Your task to perform on an android device: Go to CNN.com Image 0: 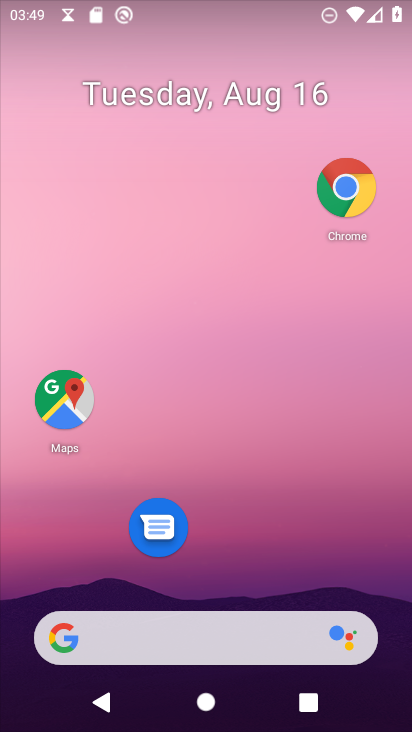
Step 0: drag from (205, 530) to (212, 19)
Your task to perform on an android device: Go to CNN.com Image 1: 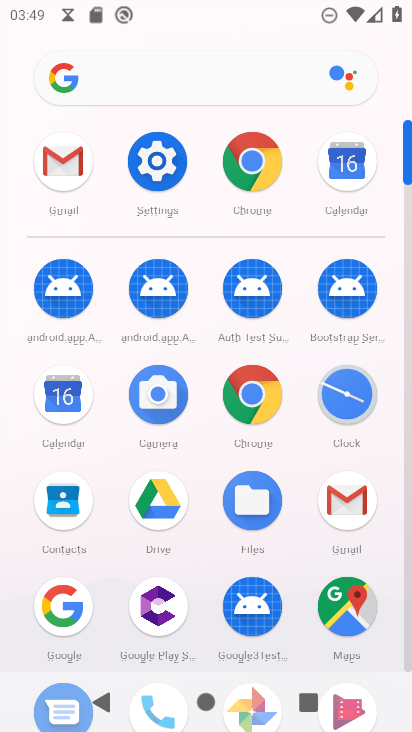
Step 1: click (248, 382)
Your task to perform on an android device: Go to CNN.com Image 2: 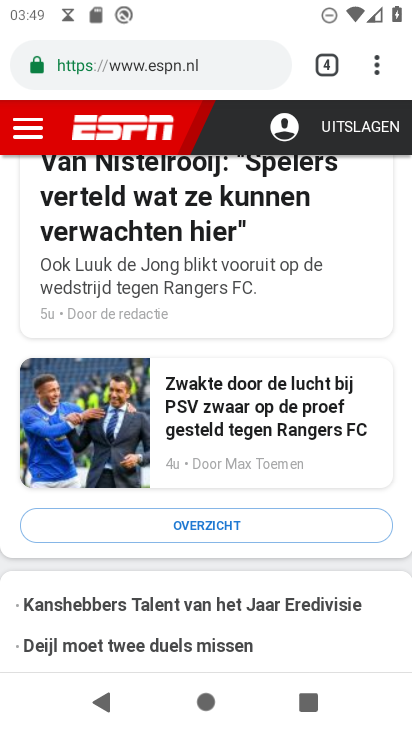
Step 2: click (325, 65)
Your task to perform on an android device: Go to CNN.com Image 3: 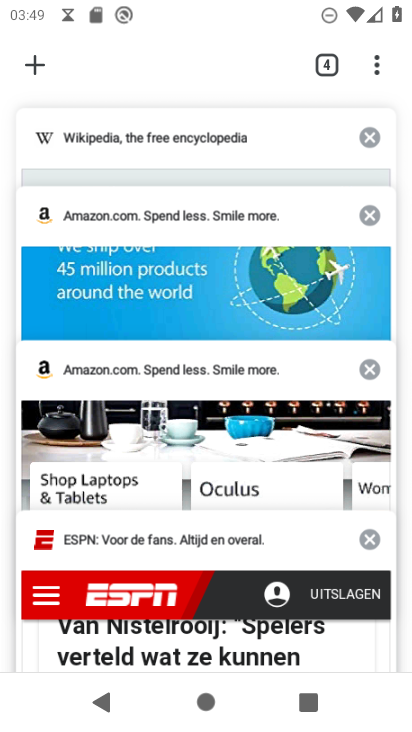
Step 3: click (28, 71)
Your task to perform on an android device: Go to CNN.com Image 4: 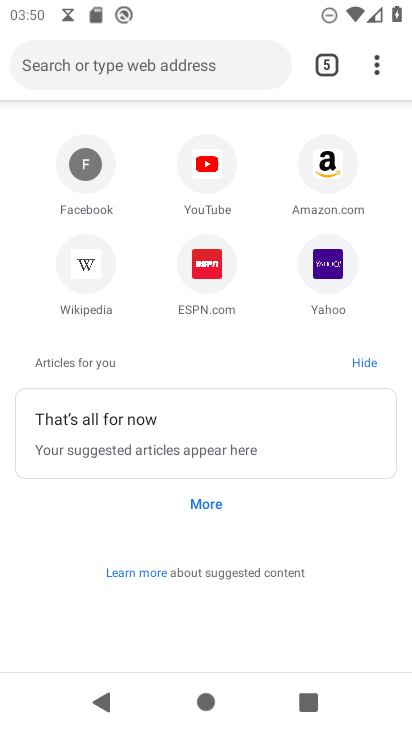
Step 4: click (112, 61)
Your task to perform on an android device: Go to CNN.com Image 5: 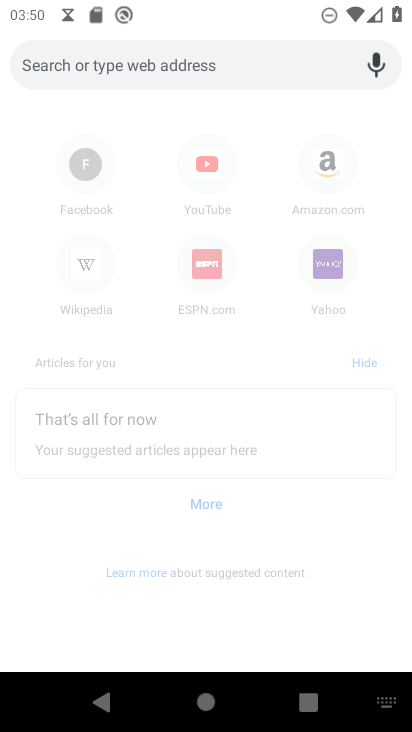
Step 5: type "CNN.com"
Your task to perform on an android device: Go to CNN.com Image 6: 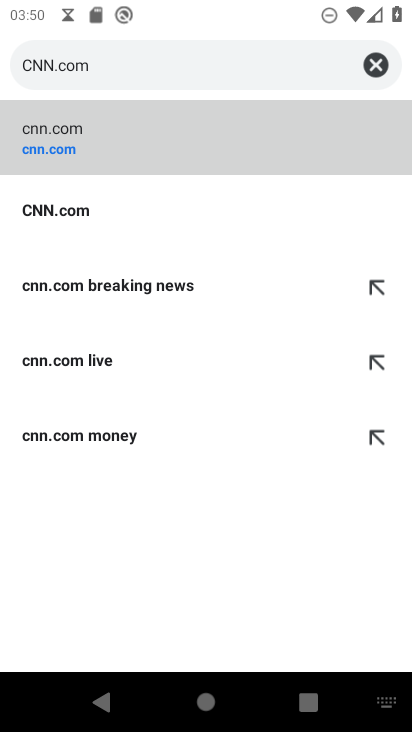
Step 6: click (96, 144)
Your task to perform on an android device: Go to CNN.com Image 7: 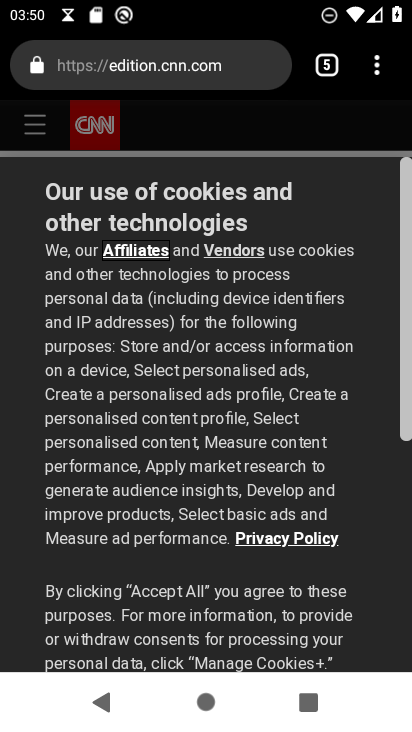
Step 7: drag from (217, 635) to (239, 169)
Your task to perform on an android device: Go to CNN.com Image 8: 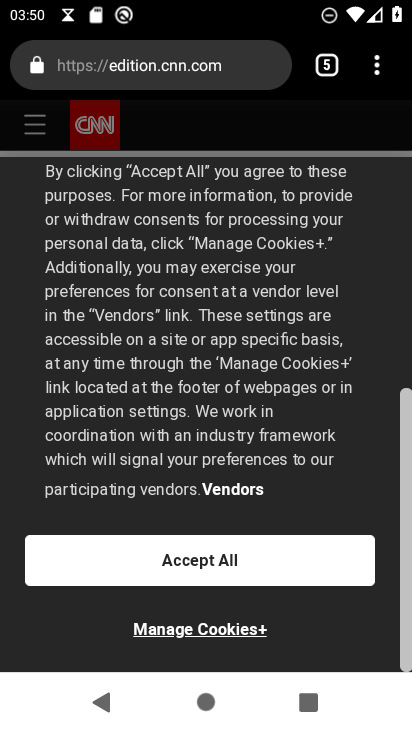
Step 8: click (181, 553)
Your task to perform on an android device: Go to CNN.com Image 9: 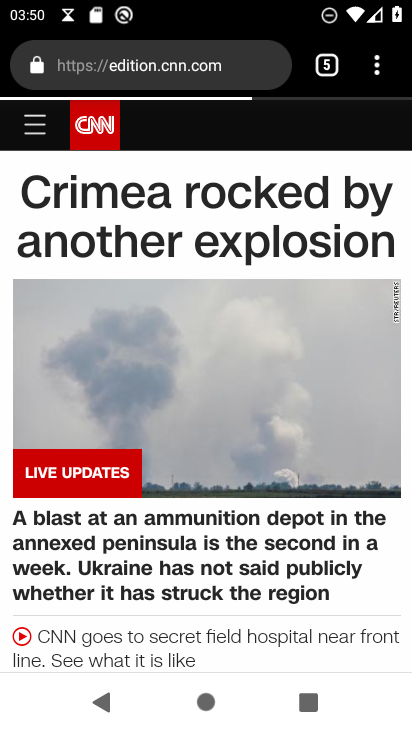
Step 9: task complete